Your task to perform on an android device: set default search engine in the chrome app Image 0: 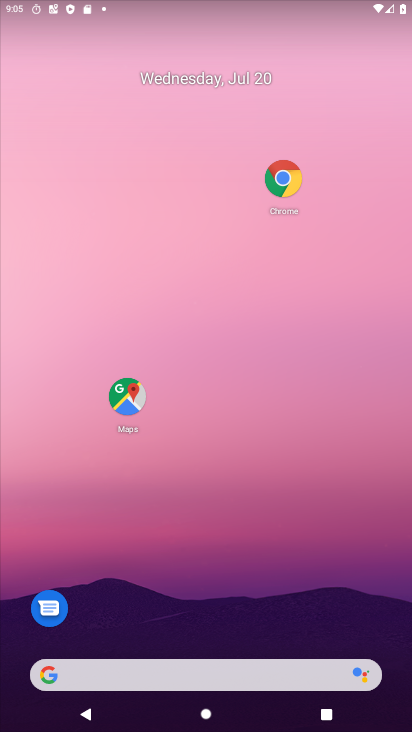
Step 0: drag from (282, 615) to (227, 109)
Your task to perform on an android device: set default search engine in the chrome app Image 1: 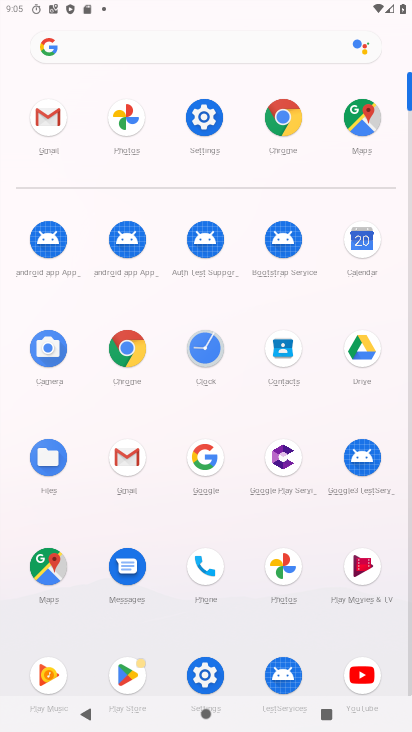
Step 1: click (141, 356)
Your task to perform on an android device: set default search engine in the chrome app Image 2: 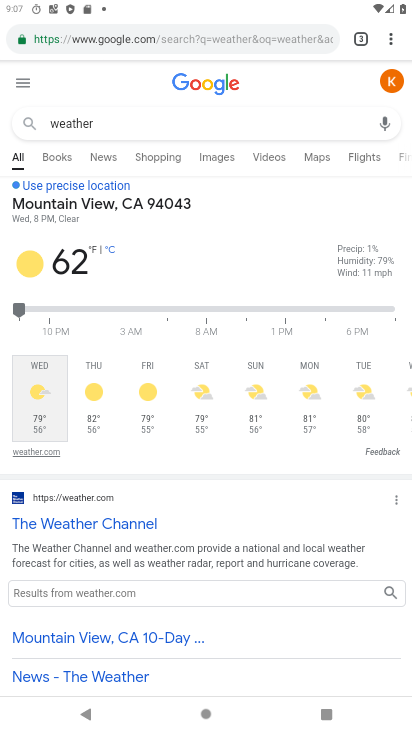
Step 2: click (387, 45)
Your task to perform on an android device: set default search engine in the chrome app Image 3: 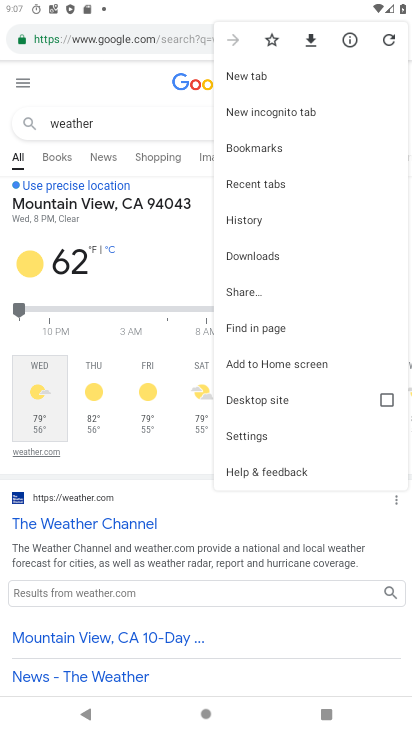
Step 3: click (390, 47)
Your task to perform on an android device: set default search engine in the chrome app Image 4: 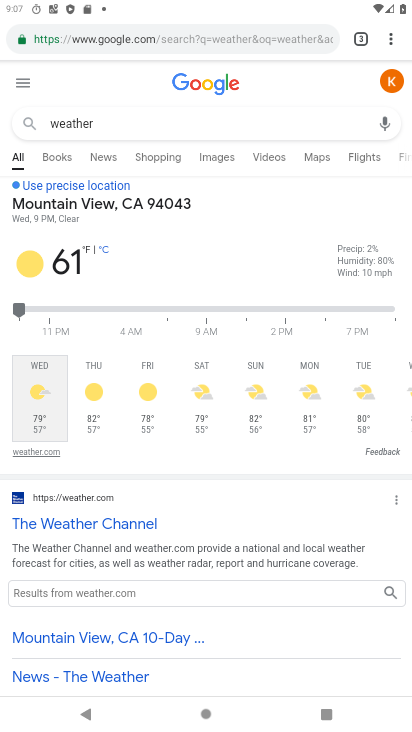
Step 4: click (390, 44)
Your task to perform on an android device: set default search engine in the chrome app Image 5: 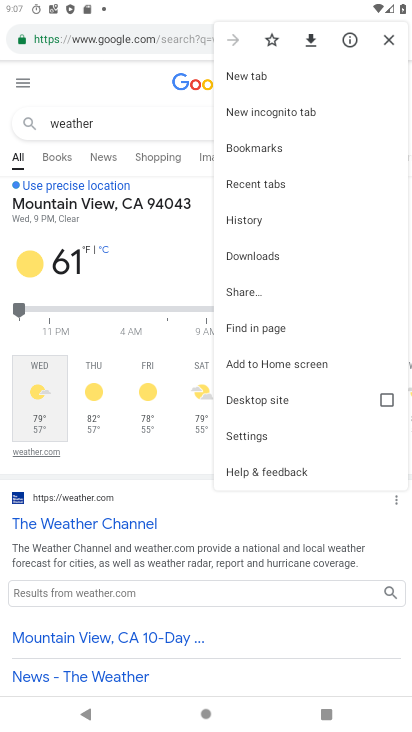
Step 5: click (266, 440)
Your task to perform on an android device: set default search engine in the chrome app Image 6: 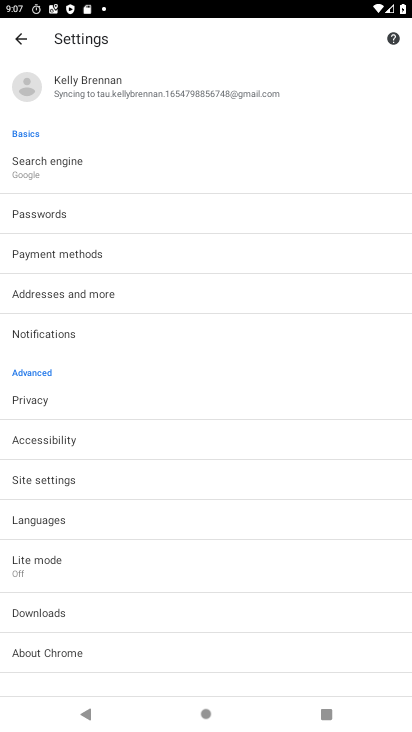
Step 6: click (161, 173)
Your task to perform on an android device: set default search engine in the chrome app Image 7: 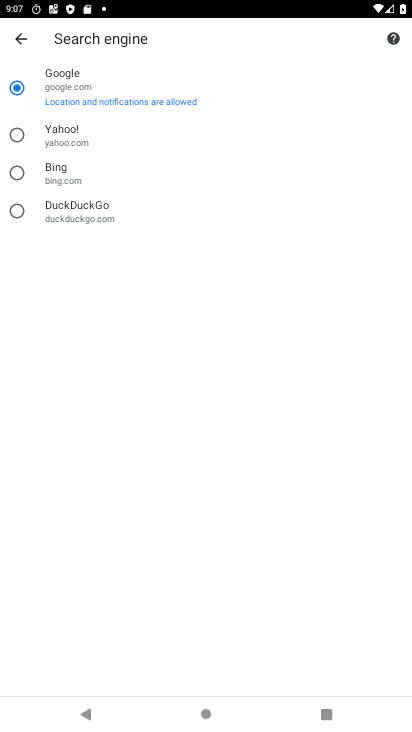
Step 7: click (141, 98)
Your task to perform on an android device: set default search engine in the chrome app Image 8: 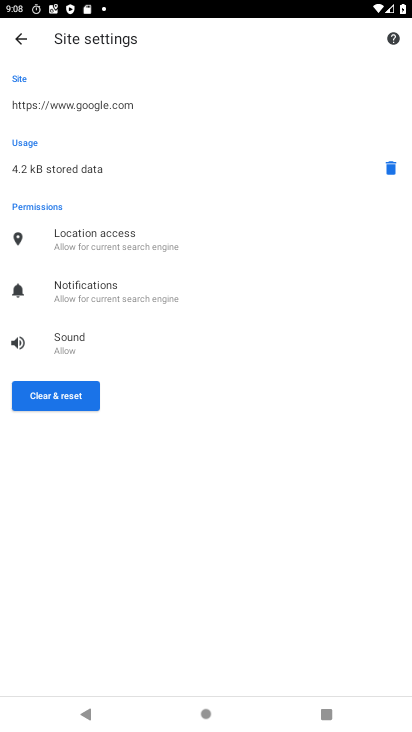
Step 8: click (54, 406)
Your task to perform on an android device: set default search engine in the chrome app Image 9: 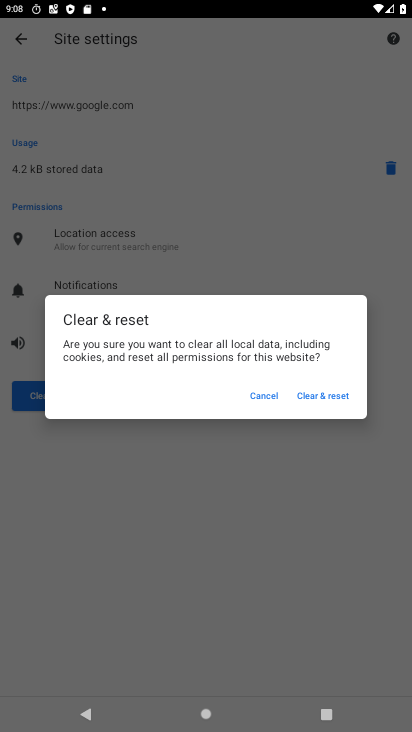
Step 9: task complete